Your task to perform on an android device: open a new tab in the chrome app Image 0: 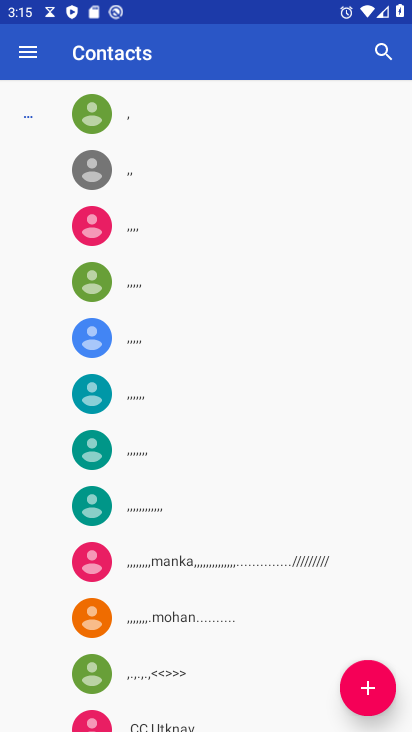
Step 0: press home button
Your task to perform on an android device: open a new tab in the chrome app Image 1: 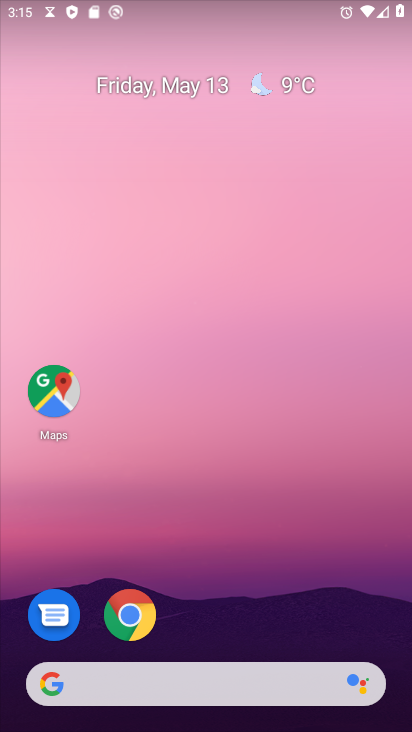
Step 1: click (129, 619)
Your task to perform on an android device: open a new tab in the chrome app Image 2: 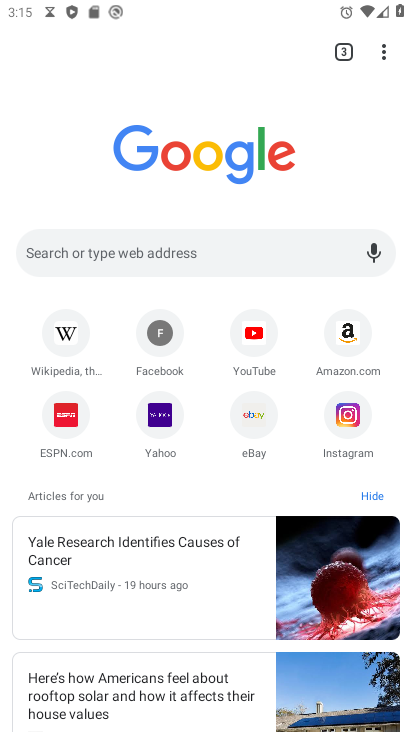
Step 2: click (384, 55)
Your task to perform on an android device: open a new tab in the chrome app Image 3: 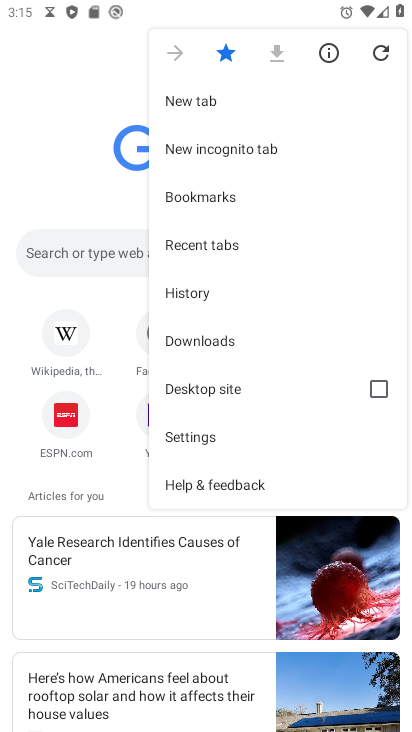
Step 3: click (193, 99)
Your task to perform on an android device: open a new tab in the chrome app Image 4: 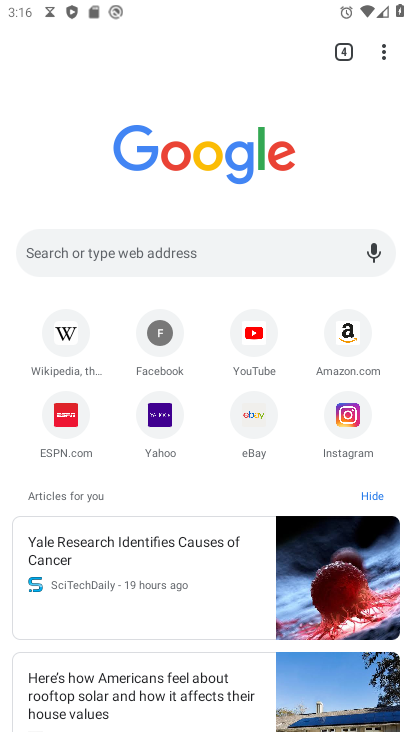
Step 4: task complete